Your task to perform on an android device: Open ESPN.com Image 0: 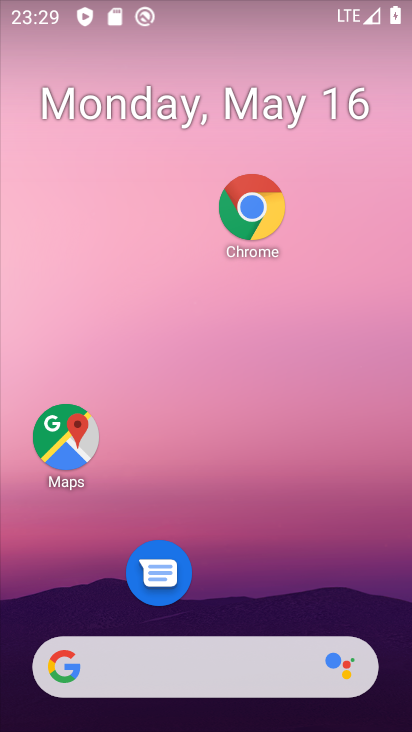
Step 0: drag from (236, 634) to (324, 58)
Your task to perform on an android device: Open ESPN.com Image 1: 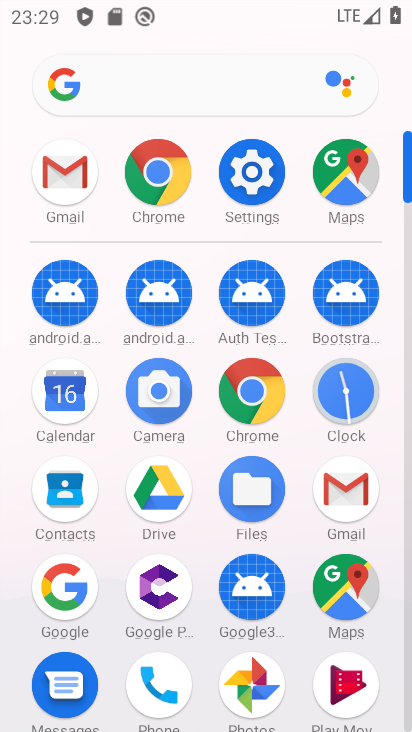
Step 1: click (268, 389)
Your task to perform on an android device: Open ESPN.com Image 2: 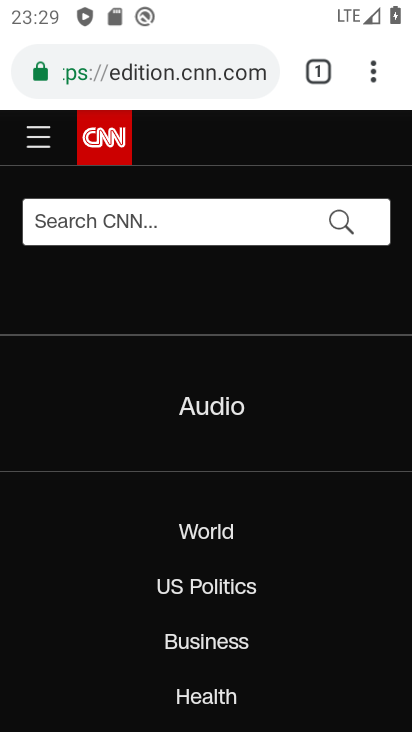
Step 2: click (162, 85)
Your task to perform on an android device: Open ESPN.com Image 3: 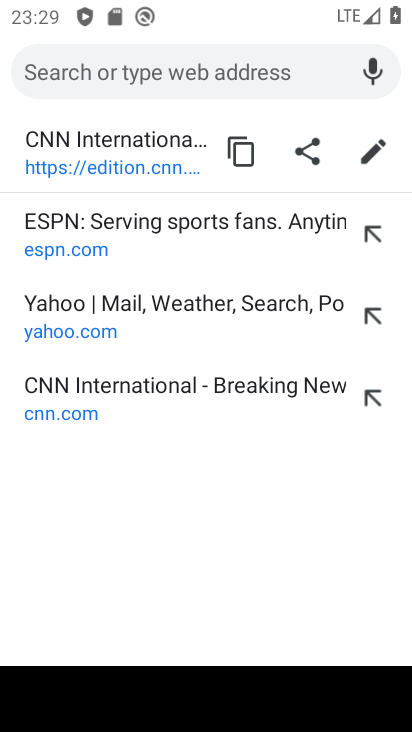
Step 3: click (284, 235)
Your task to perform on an android device: Open ESPN.com Image 4: 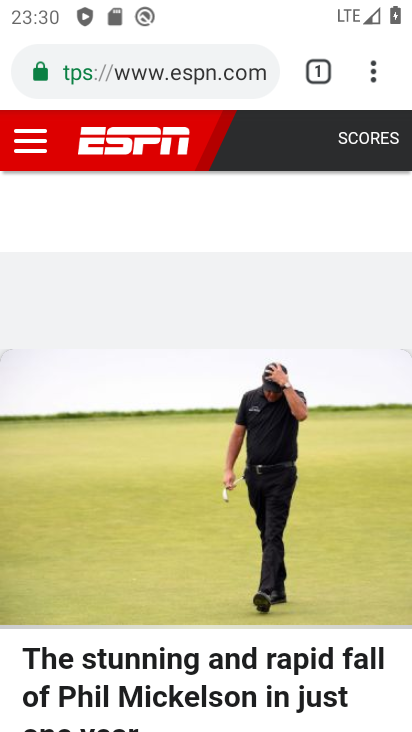
Step 4: task complete